Your task to perform on an android device: Go to Yahoo.com Image 0: 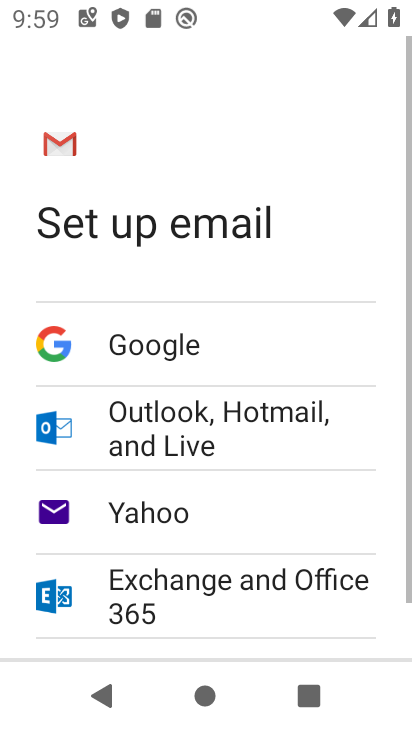
Step 0: press back button
Your task to perform on an android device: Go to Yahoo.com Image 1: 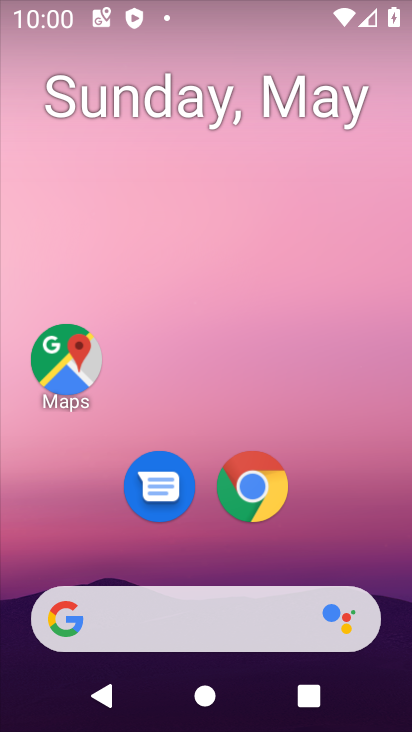
Step 1: click (255, 486)
Your task to perform on an android device: Go to Yahoo.com Image 2: 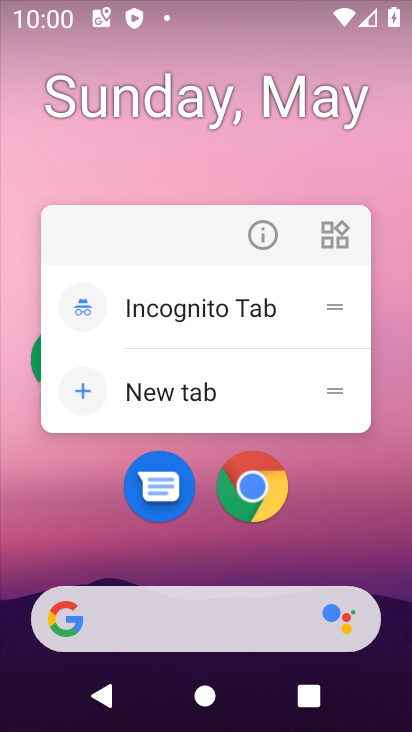
Step 2: click (255, 486)
Your task to perform on an android device: Go to Yahoo.com Image 3: 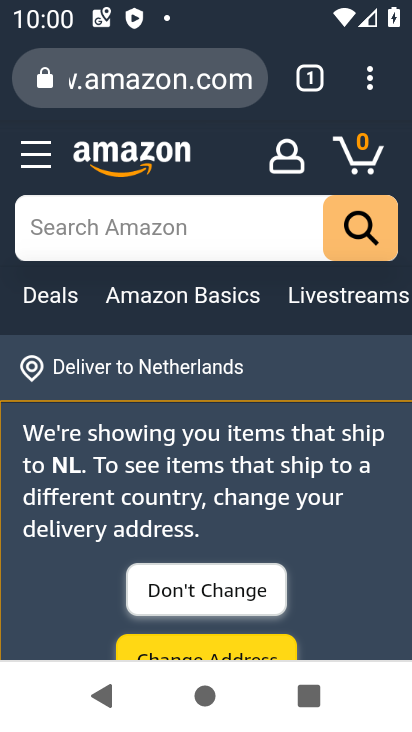
Step 3: click (236, 86)
Your task to perform on an android device: Go to Yahoo.com Image 4: 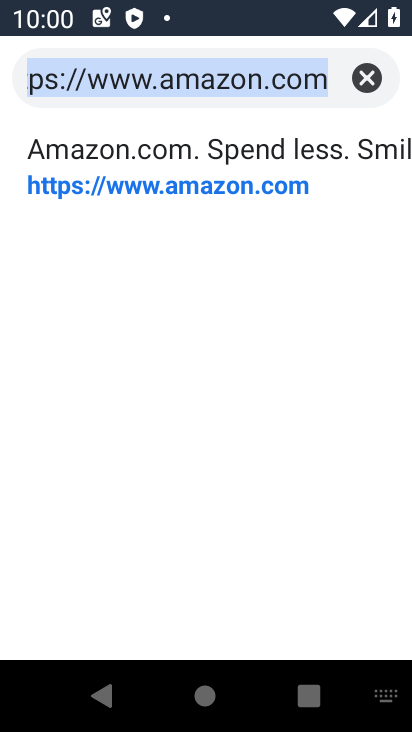
Step 4: click (371, 78)
Your task to perform on an android device: Go to Yahoo.com Image 5: 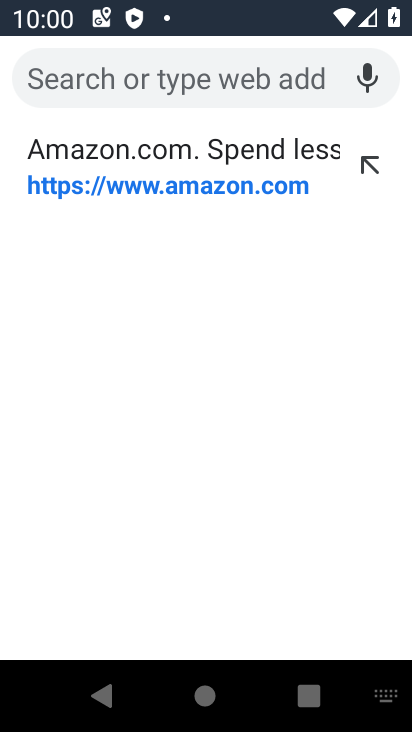
Step 5: click (228, 80)
Your task to perform on an android device: Go to Yahoo.com Image 6: 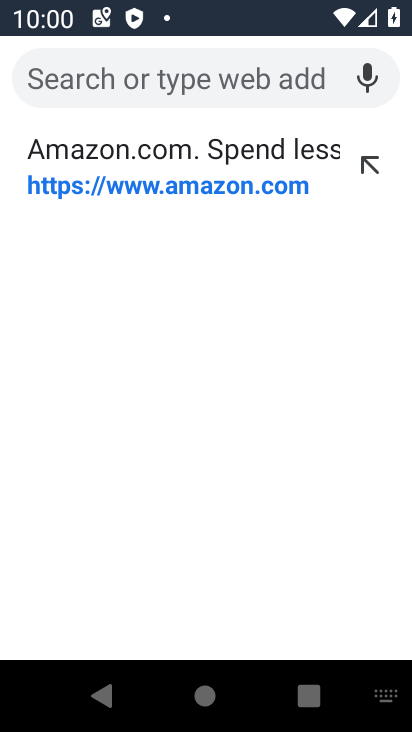
Step 6: type "Yahoo.com"
Your task to perform on an android device: Go to Yahoo.com Image 7: 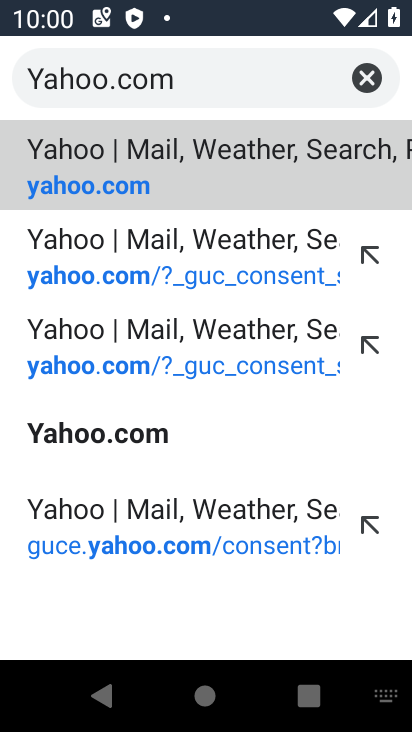
Step 7: click (156, 145)
Your task to perform on an android device: Go to Yahoo.com Image 8: 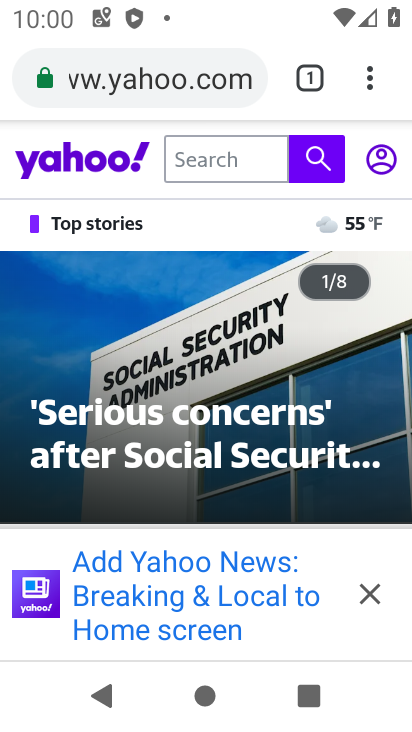
Step 8: task complete